Your task to perform on an android device: Go to internet settings Image 0: 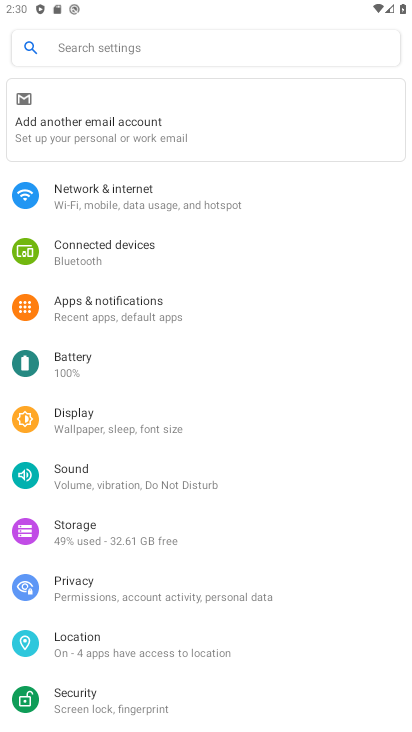
Step 0: click (173, 199)
Your task to perform on an android device: Go to internet settings Image 1: 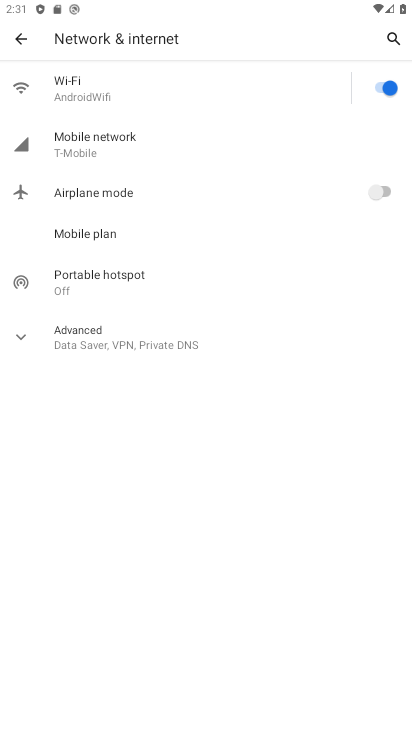
Step 1: task complete